Your task to perform on an android device: What's the weather going to be tomorrow? Image 0: 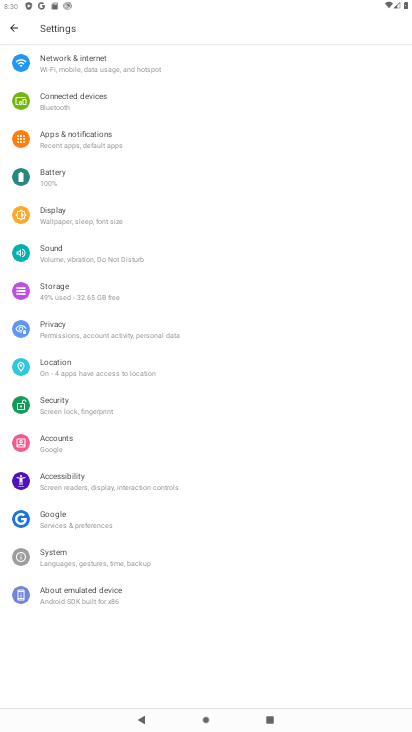
Step 0: press home button
Your task to perform on an android device: What's the weather going to be tomorrow? Image 1: 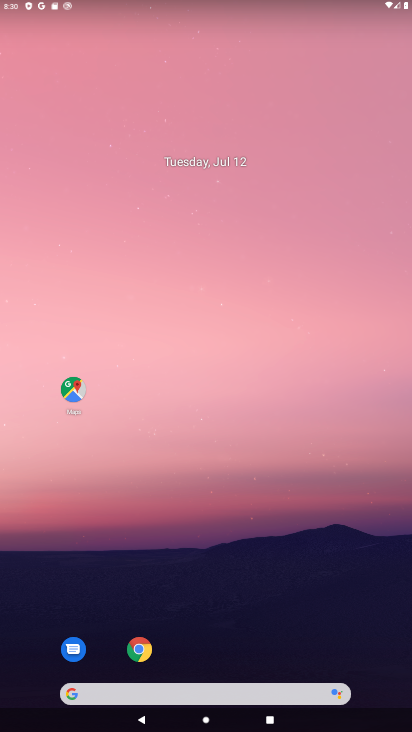
Step 1: drag from (269, 638) to (288, 162)
Your task to perform on an android device: What's the weather going to be tomorrow? Image 2: 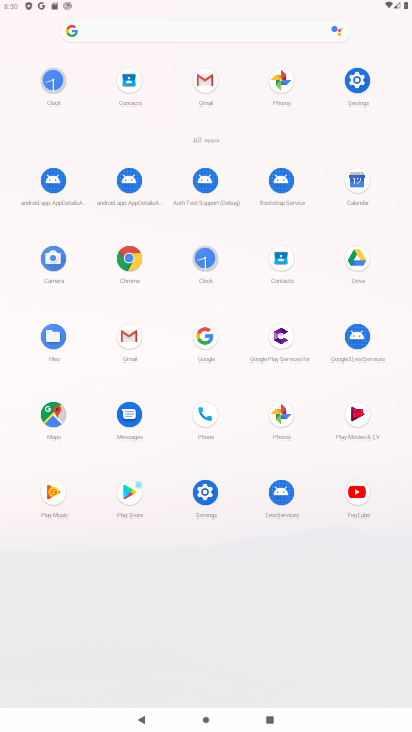
Step 2: click (204, 36)
Your task to perform on an android device: What's the weather going to be tomorrow? Image 3: 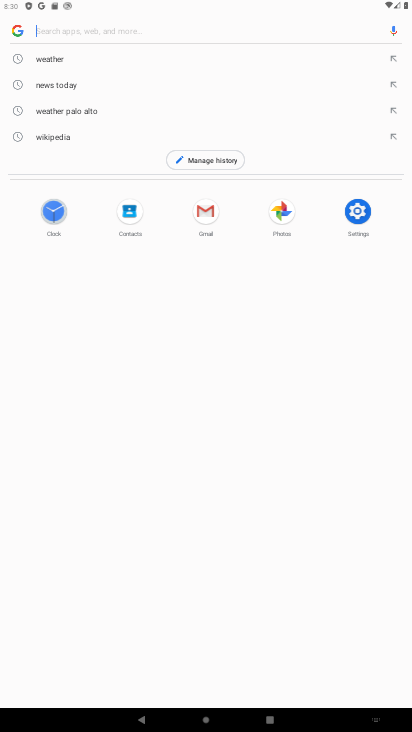
Step 3: click (138, 57)
Your task to perform on an android device: What's the weather going to be tomorrow? Image 4: 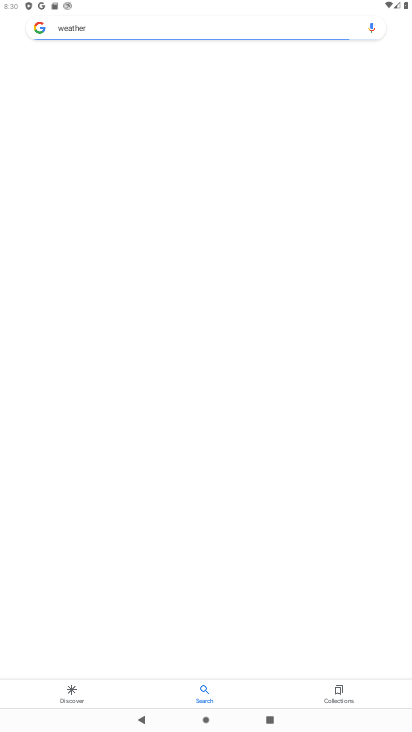
Step 4: task complete